Your task to perform on an android device: Open the calendar app, open the side menu, and click the "Day" option Image 0: 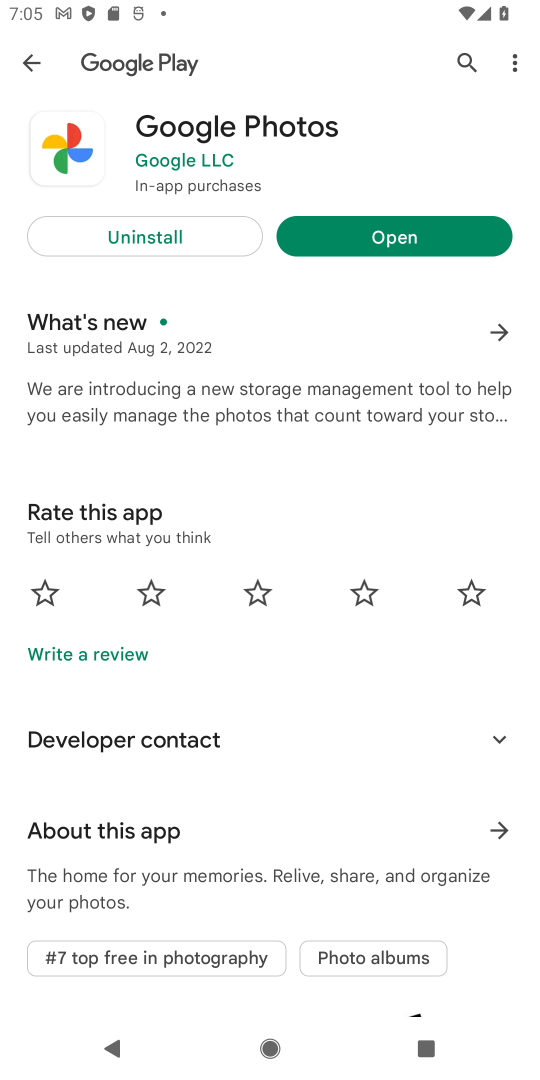
Step 0: press home button
Your task to perform on an android device: Open the calendar app, open the side menu, and click the "Day" option Image 1: 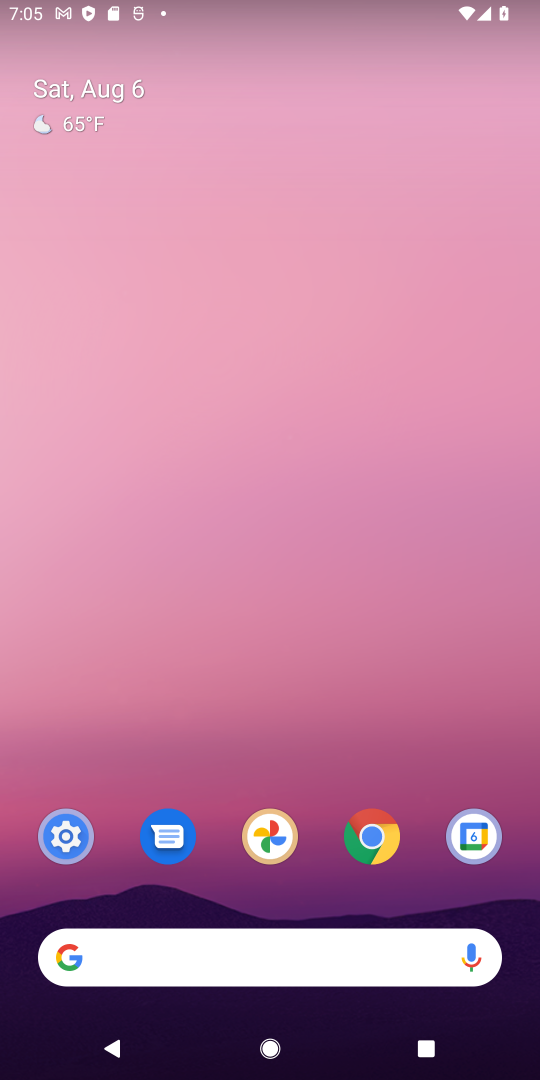
Step 1: drag from (460, 903) to (242, 55)
Your task to perform on an android device: Open the calendar app, open the side menu, and click the "Day" option Image 2: 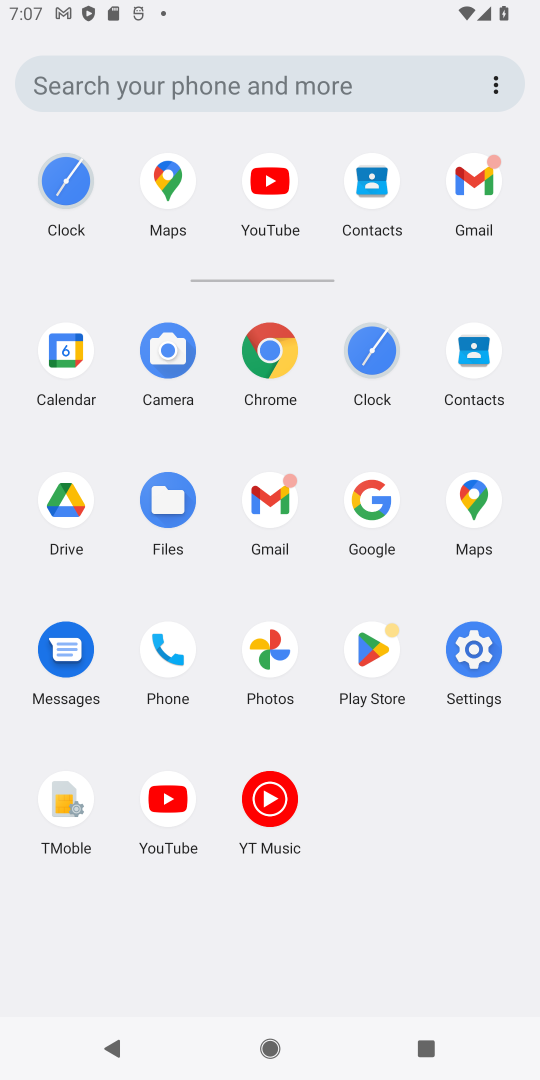
Step 2: click (79, 351)
Your task to perform on an android device: Open the calendar app, open the side menu, and click the "Day" option Image 3: 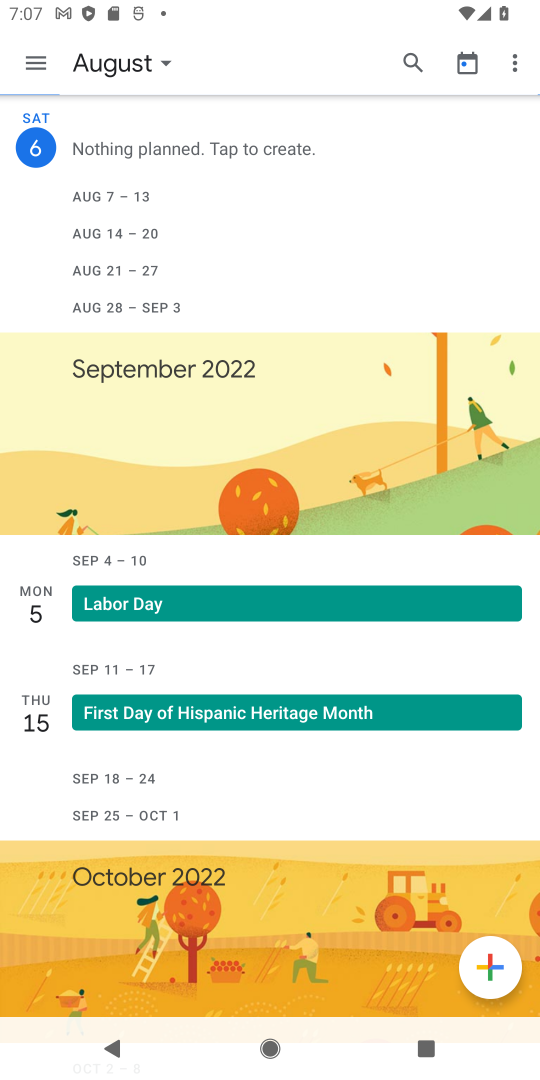
Step 3: click (29, 66)
Your task to perform on an android device: Open the calendar app, open the side menu, and click the "Day" option Image 4: 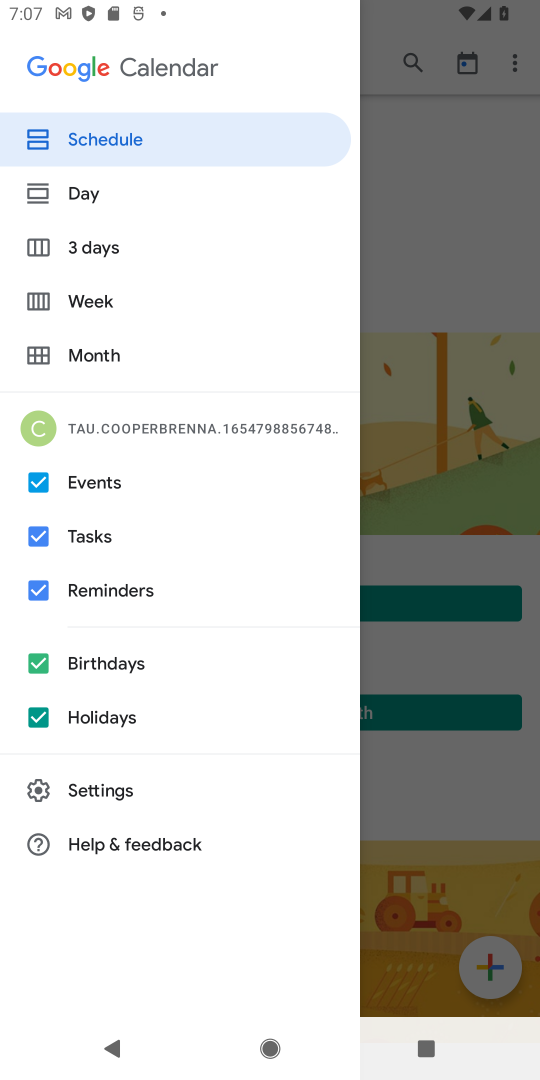
Step 4: click (120, 190)
Your task to perform on an android device: Open the calendar app, open the side menu, and click the "Day" option Image 5: 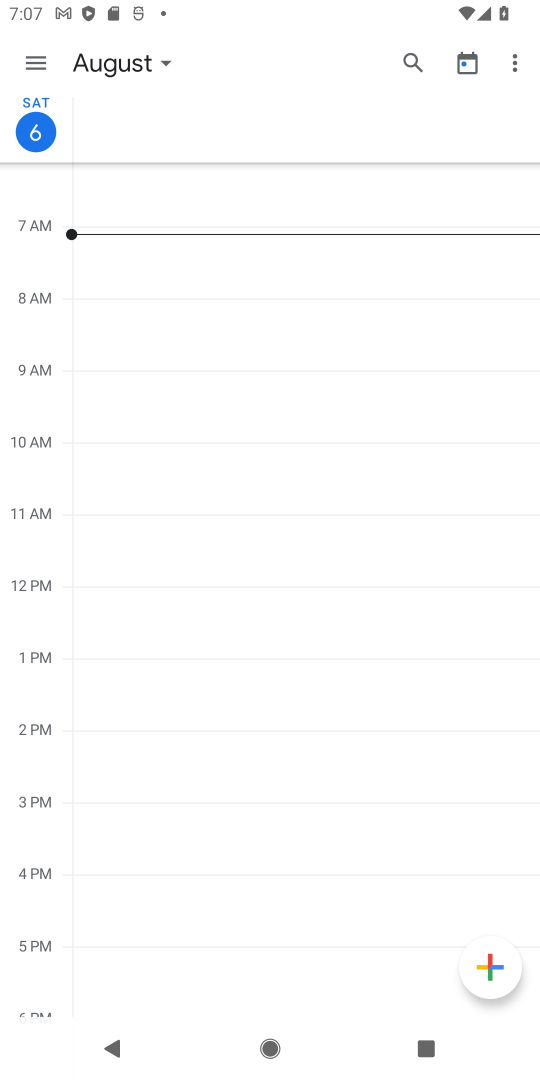
Step 5: task complete